Your task to perform on an android device: turn on location history Image 0: 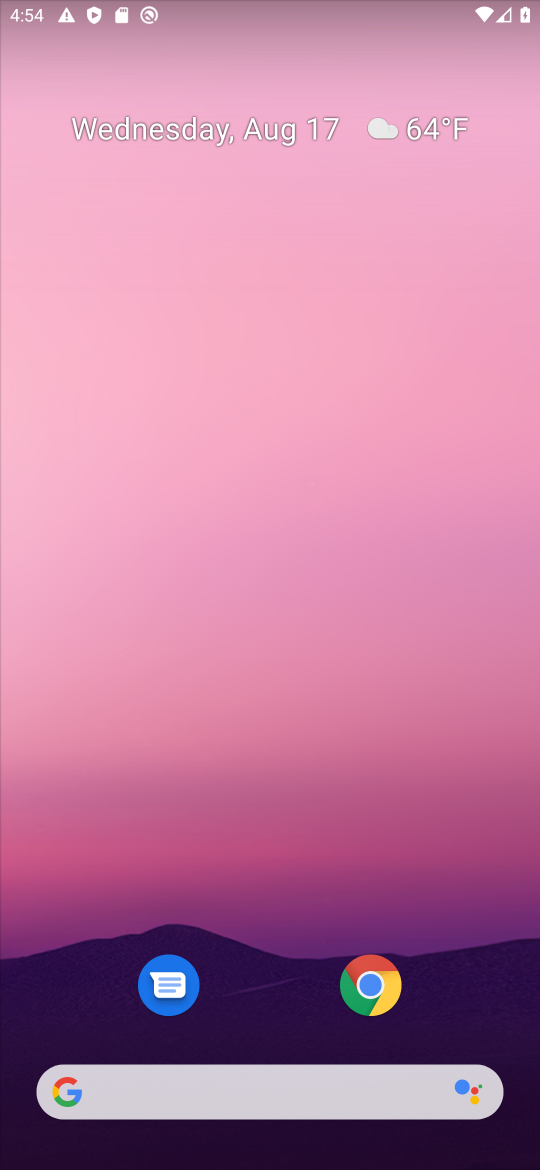
Step 0: drag from (236, 1092) to (340, 211)
Your task to perform on an android device: turn on location history Image 1: 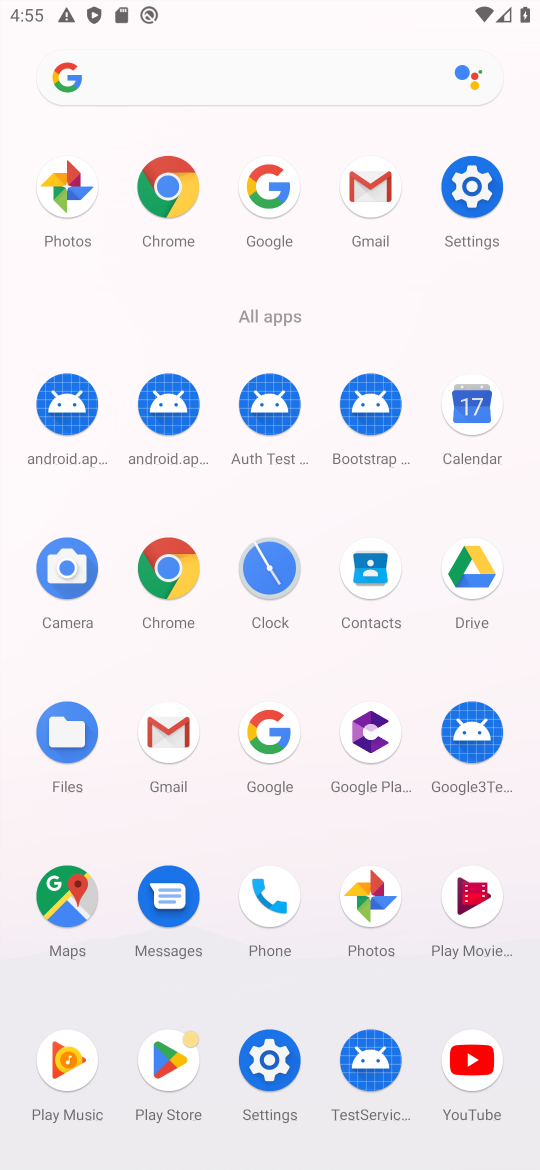
Step 1: click (471, 185)
Your task to perform on an android device: turn on location history Image 2: 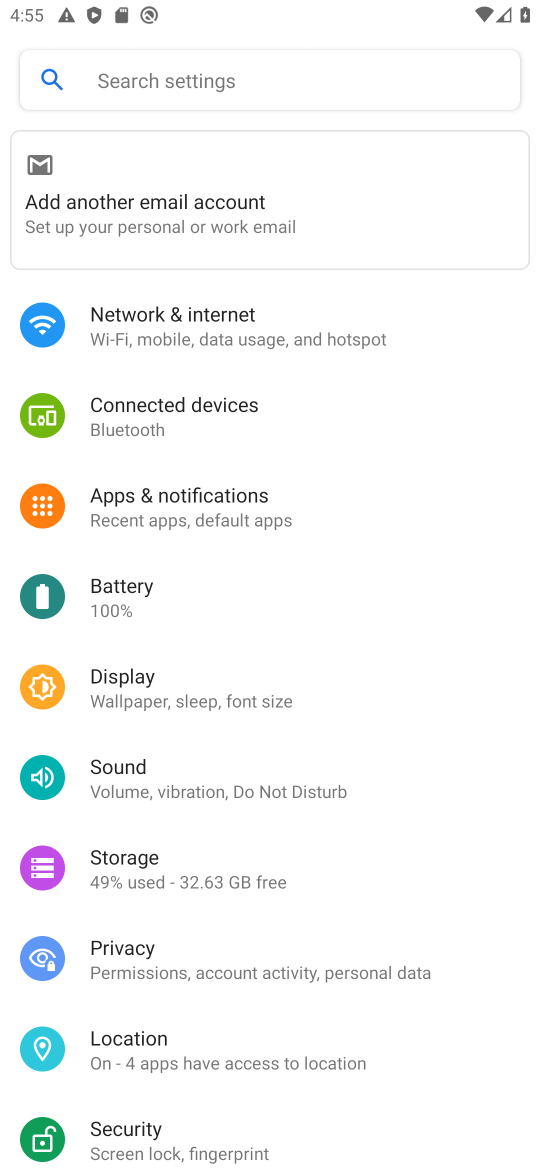
Step 2: click (142, 1055)
Your task to perform on an android device: turn on location history Image 3: 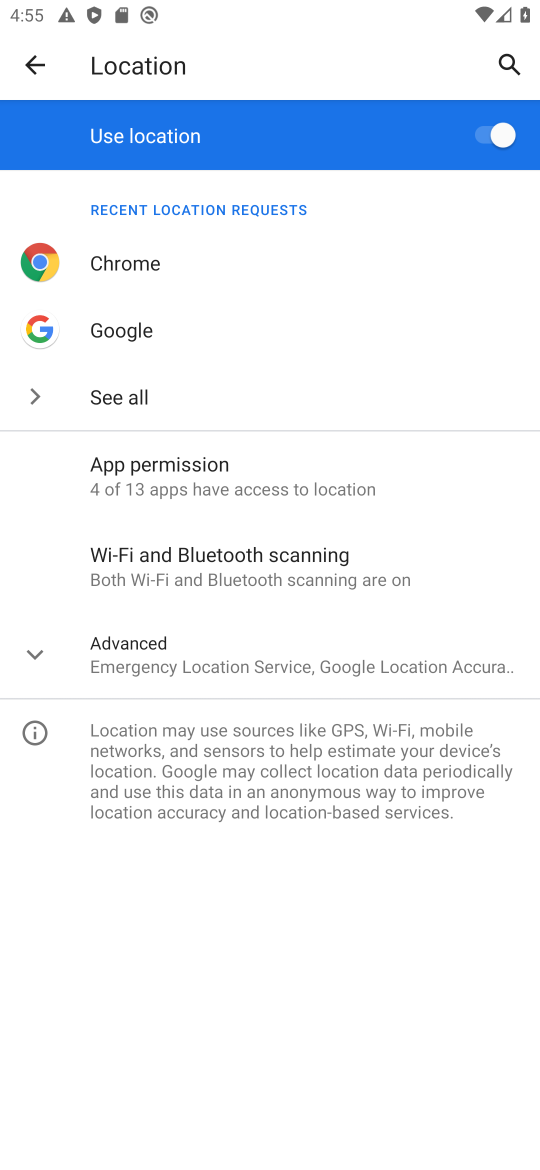
Step 3: click (183, 666)
Your task to perform on an android device: turn on location history Image 4: 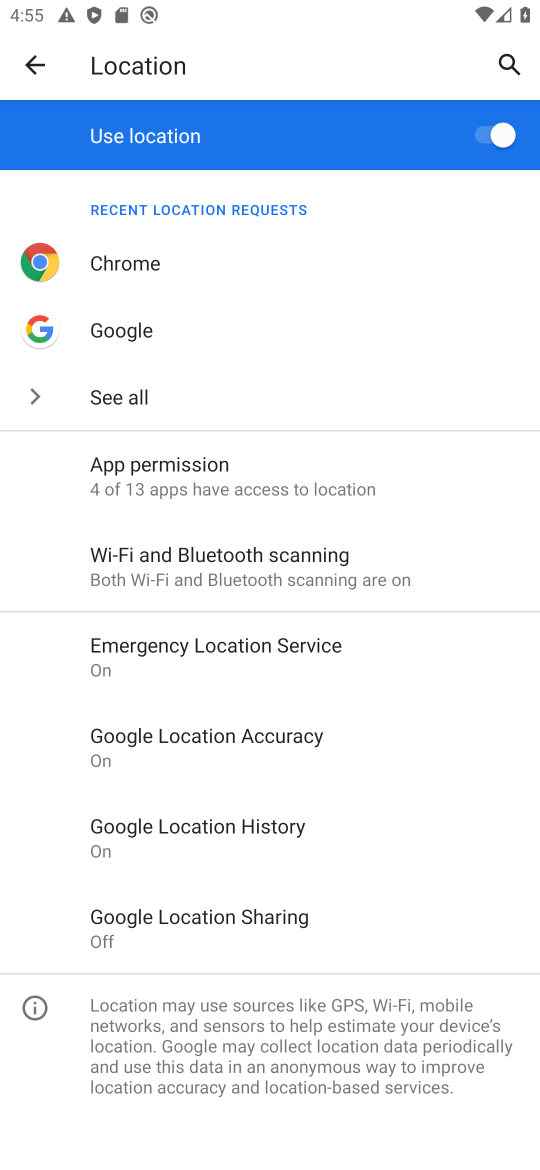
Step 4: task complete